Your task to perform on an android device: change notification settings in the gmail app Image 0: 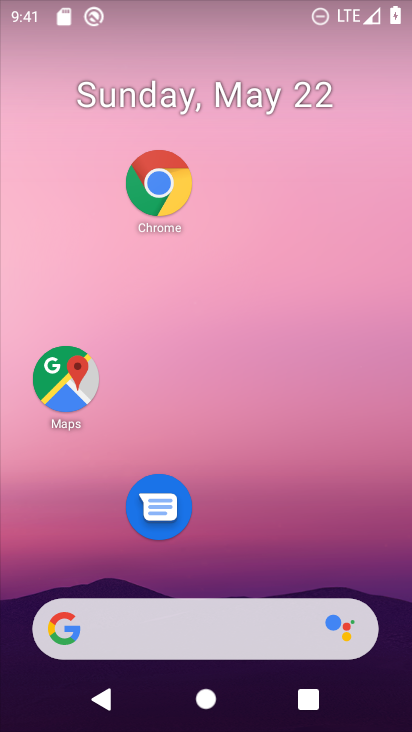
Step 0: drag from (236, 690) to (297, 98)
Your task to perform on an android device: change notification settings in the gmail app Image 1: 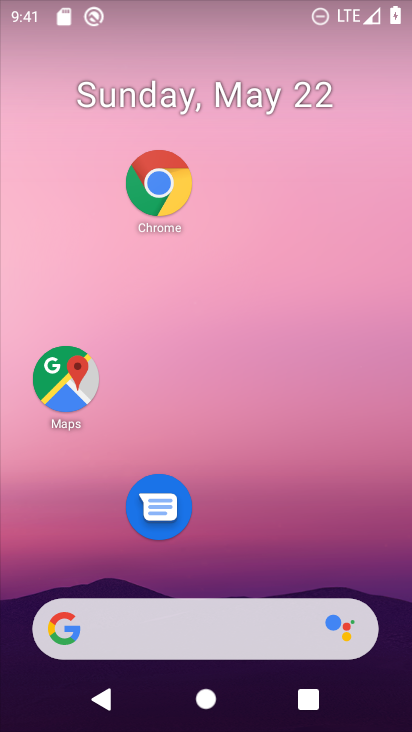
Step 1: drag from (268, 711) to (356, 78)
Your task to perform on an android device: change notification settings in the gmail app Image 2: 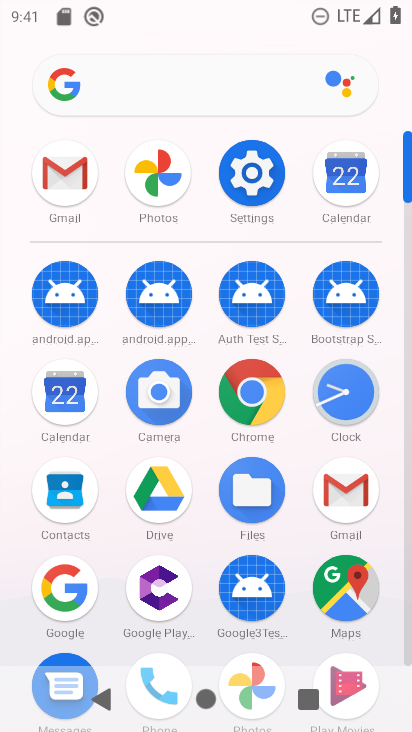
Step 2: click (97, 156)
Your task to perform on an android device: change notification settings in the gmail app Image 3: 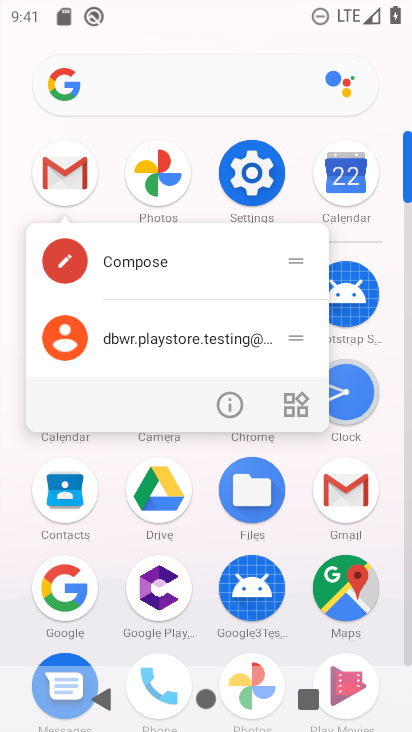
Step 3: click (236, 396)
Your task to perform on an android device: change notification settings in the gmail app Image 4: 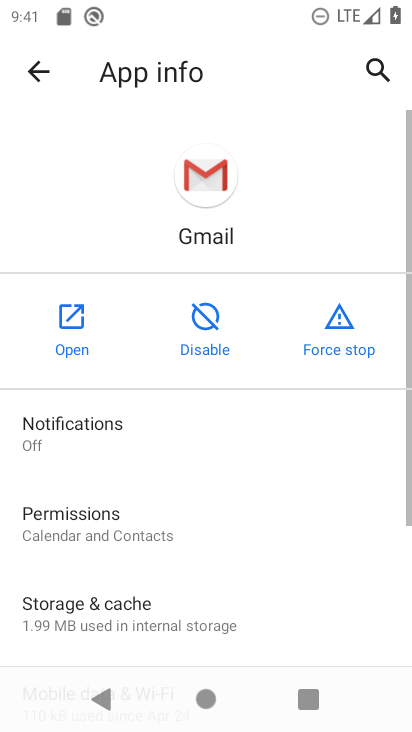
Step 4: click (177, 418)
Your task to perform on an android device: change notification settings in the gmail app Image 5: 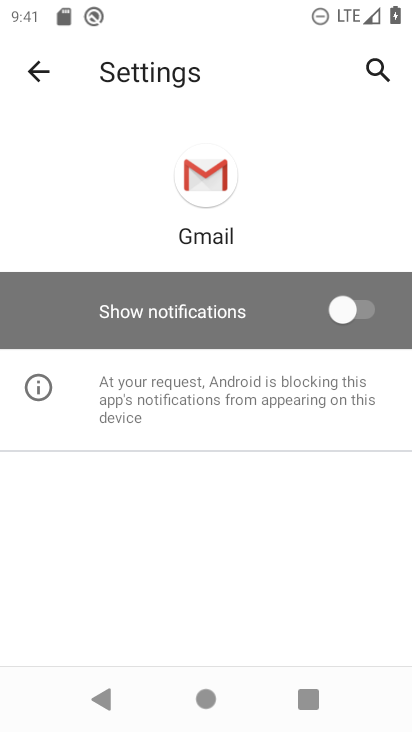
Step 5: click (344, 309)
Your task to perform on an android device: change notification settings in the gmail app Image 6: 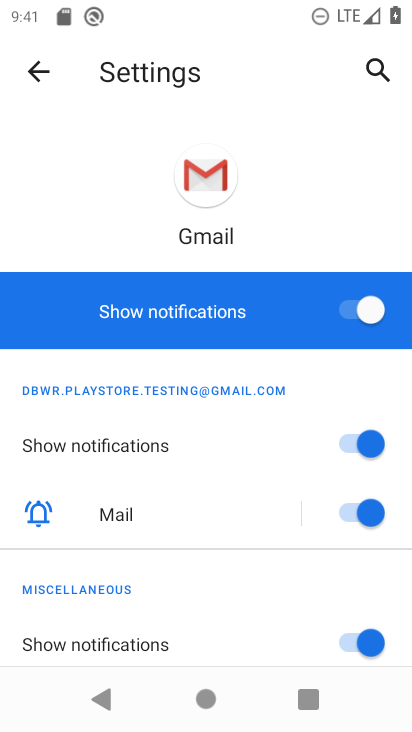
Step 6: task complete